Your task to perform on an android device: open chrome and create a bookmark for the current page Image 0: 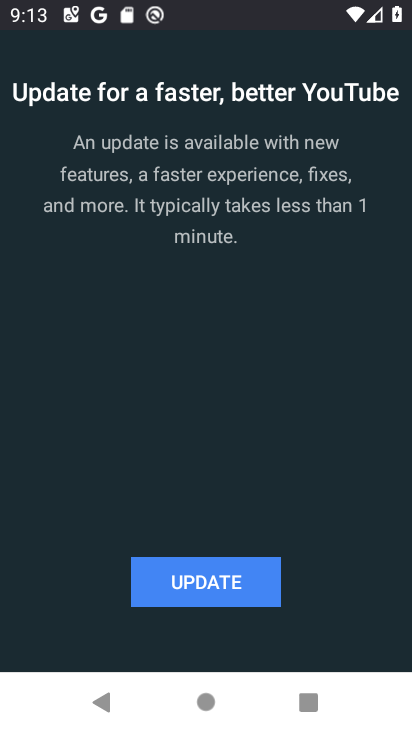
Step 0: press home button
Your task to perform on an android device: open chrome and create a bookmark for the current page Image 1: 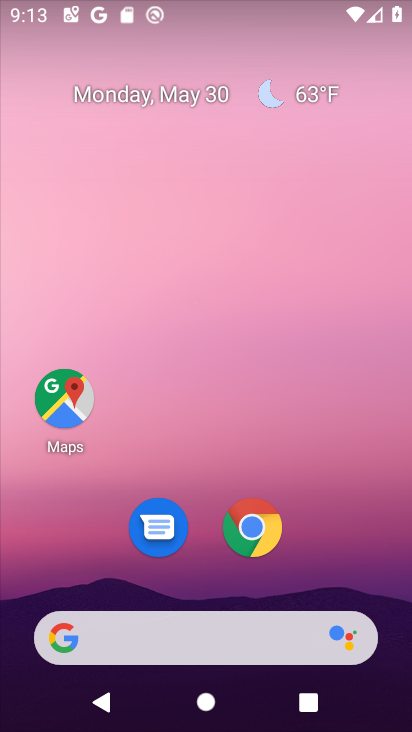
Step 1: click (264, 534)
Your task to perform on an android device: open chrome and create a bookmark for the current page Image 2: 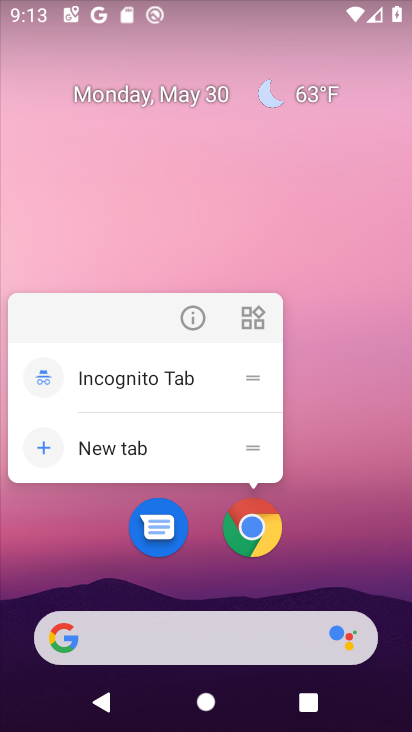
Step 2: click (254, 528)
Your task to perform on an android device: open chrome and create a bookmark for the current page Image 3: 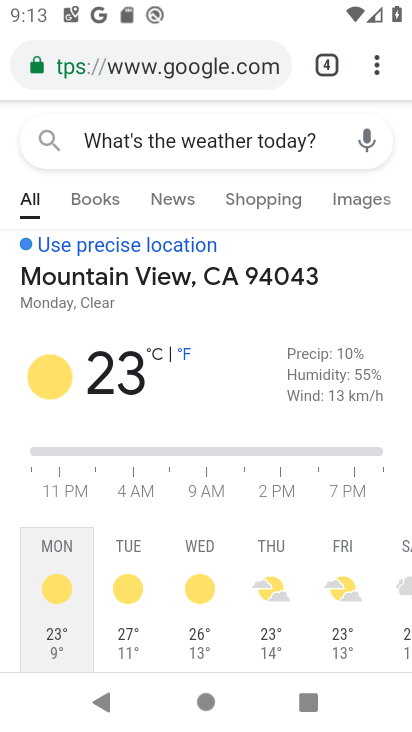
Step 3: click (393, 59)
Your task to perform on an android device: open chrome and create a bookmark for the current page Image 4: 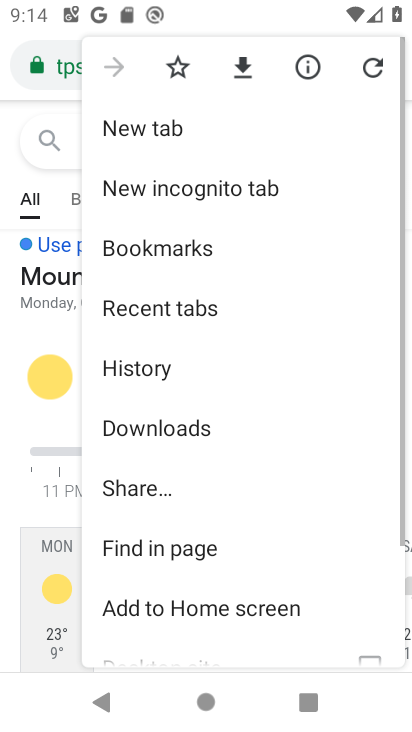
Step 4: click (216, 243)
Your task to perform on an android device: open chrome and create a bookmark for the current page Image 5: 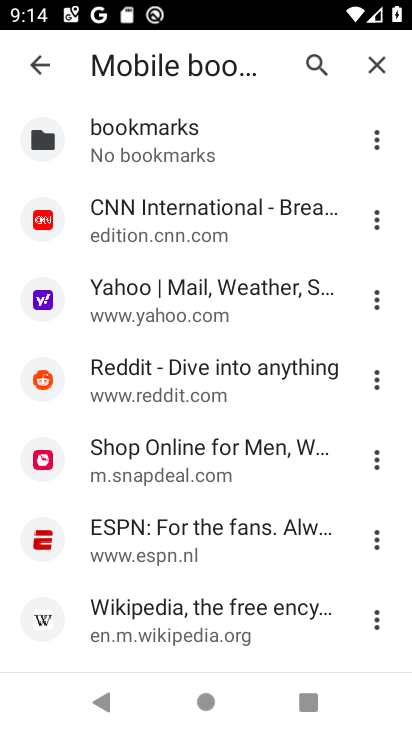
Step 5: click (210, 229)
Your task to perform on an android device: open chrome and create a bookmark for the current page Image 6: 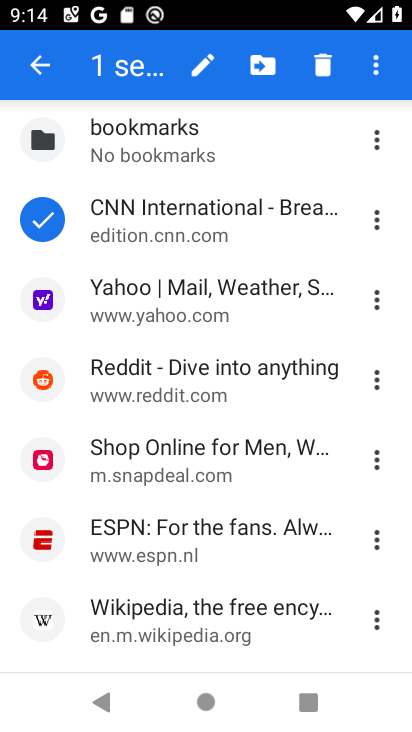
Step 6: click (38, 54)
Your task to perform on an android device: open chrome and create a bookmark for the current page Image 7: 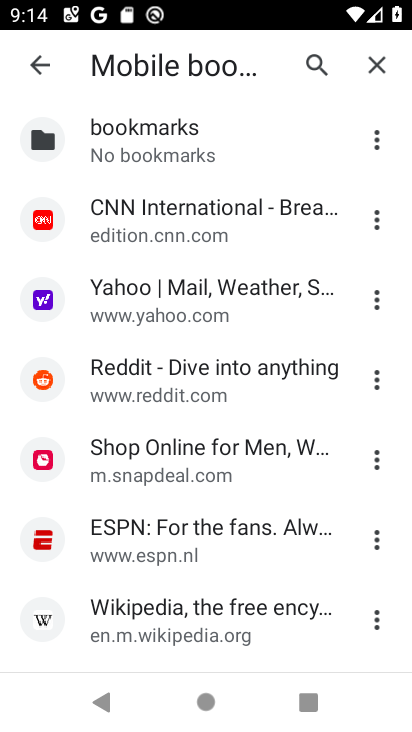
Step 7: click (38, 54)
Your task to perform on an android device: open chrome and create a bookmark for the current page Image 8: 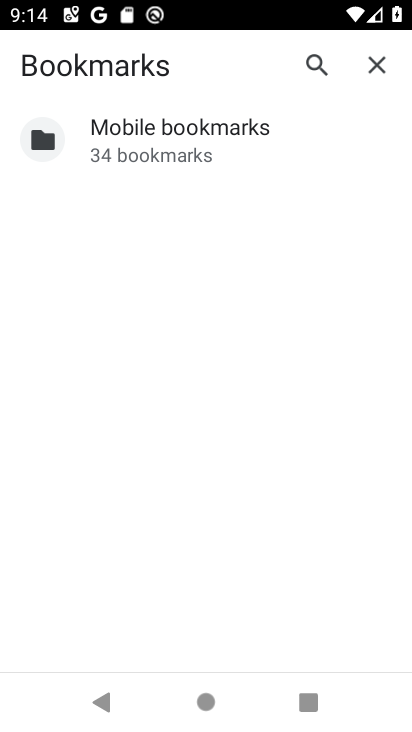
Step 8: click (376, 64)
Your task to perform on an android device: open chrome and create a bookmark for the current page Image 9: 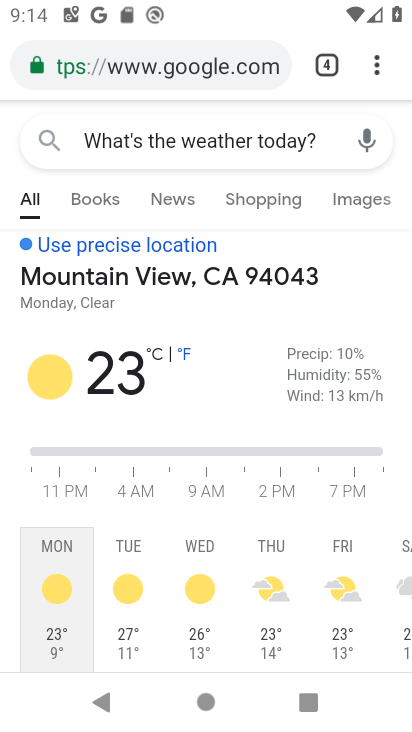
Step 9: click (350, 65)
Your task to perform on an android device: open chrome and create a bookmark for the current page Image 10: 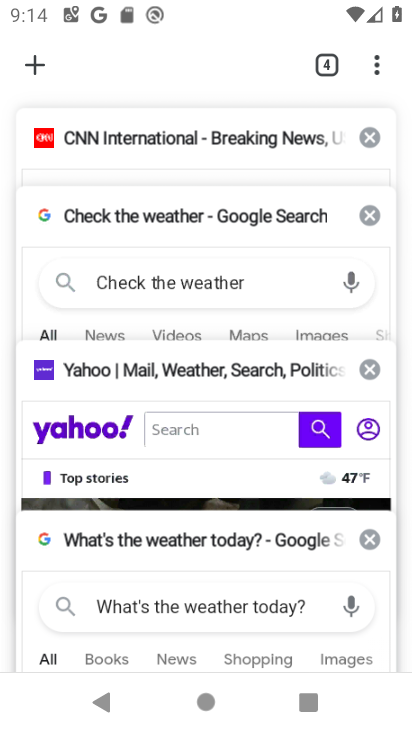
Step 10: click (136, 555)
Your task to perform on an android device: open chrome and create a bookmark for the current page Image 11: 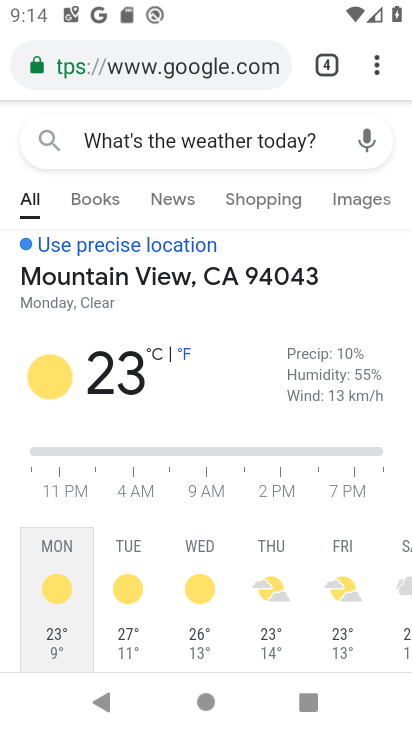
Step 11: click (358, 67)
Your task to perform on an android device: open chrome and create a bookmark for the current page Image 12: 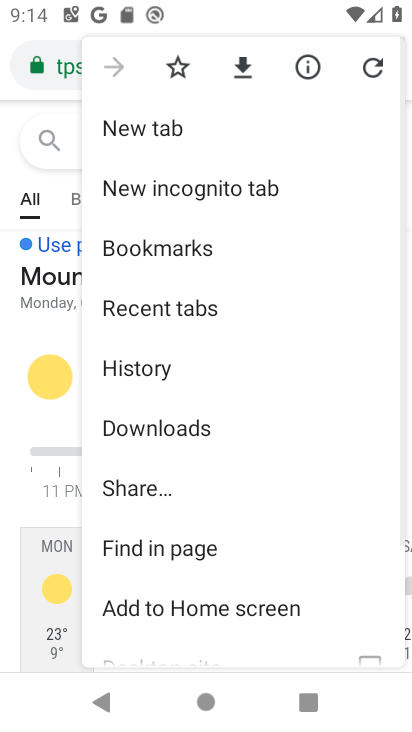
Step 12: click (177, 62)
Your task to perform on an android device: open chrome and create a bookmark for the current page Image 13: 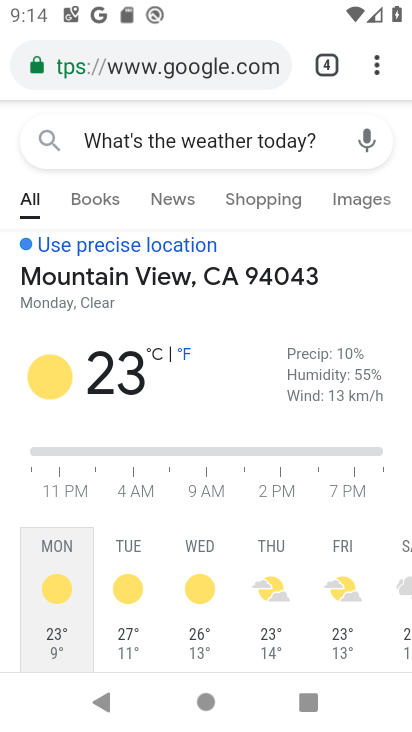
Step 13: task complete